Your task to perform on an android device: Open maps Image 0: 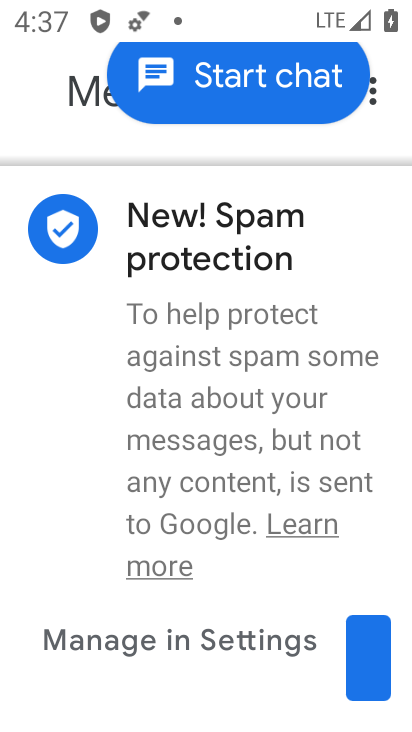
Step 0: press home button
Your task to perform on an android device: Open maps Image 1: 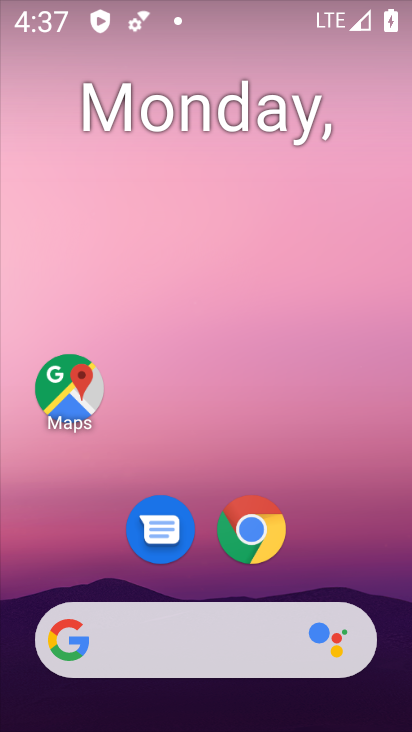
Step 1: click (78, 393)
Your task to perform on an android device: Open maps Image 2: 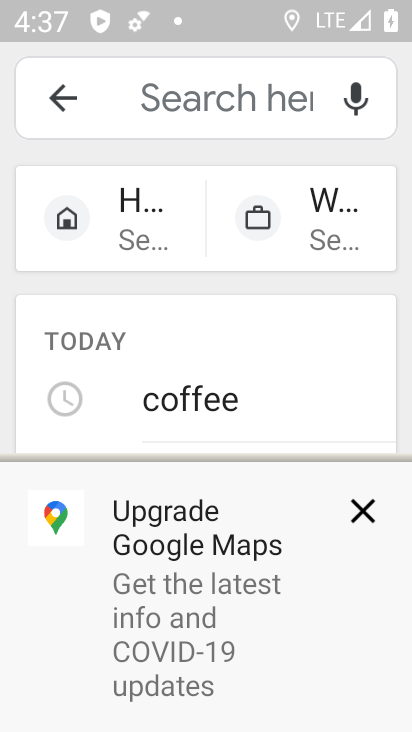
Step 2: click (368, 509)
Your task to perform on an android device: Open maps Image 3: 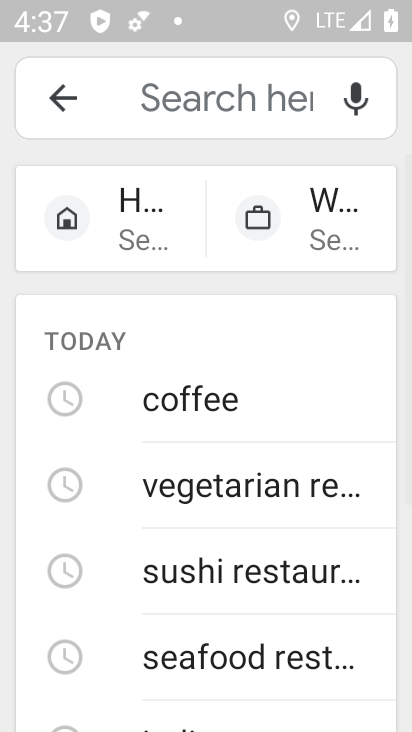
Step 3: click (69, 90)
Your task to perform on an android device: Open maps Image 4: 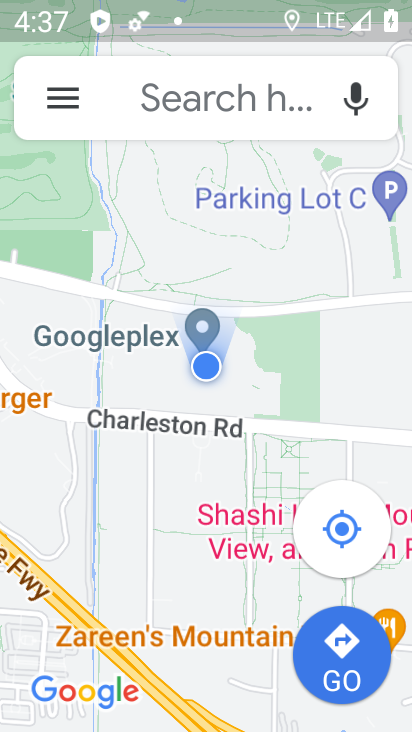
Step 4: task complete